Your task to perform on an android device: Turn off the flashlight Image 0: 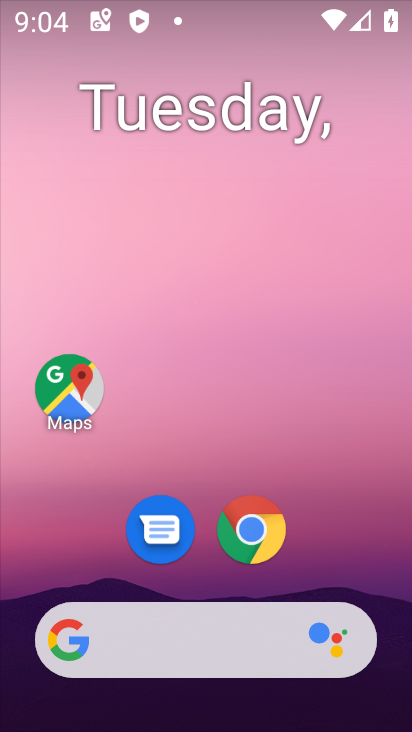
Step 0: drag from (282, 77) to (240, 496)
Your task to perform on an android device: Turn off the flashlight Image 1: 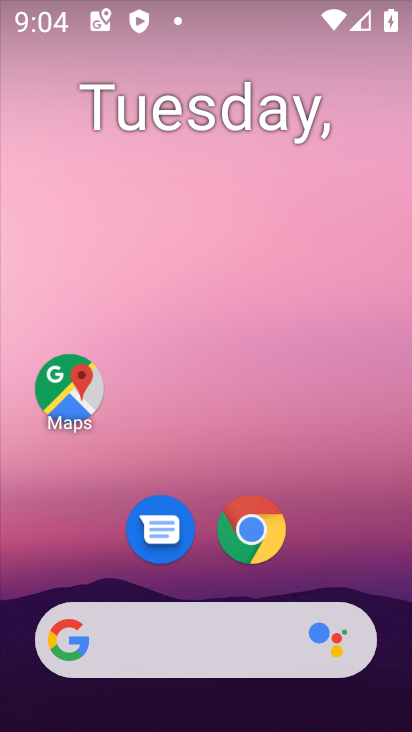
Step 1: task complete